Your task to perform on an android device: change timer sound Image 0: 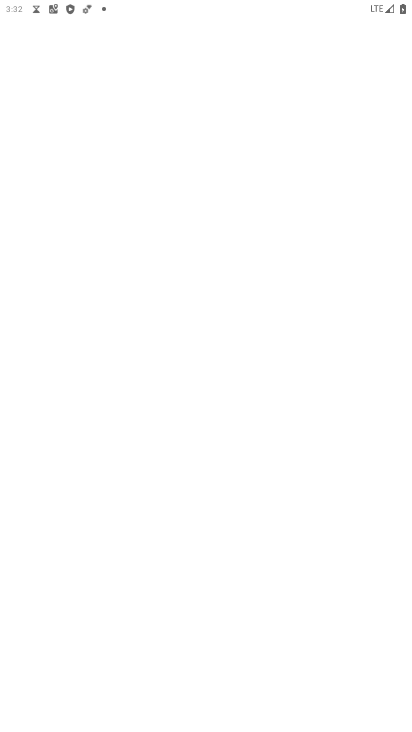
Step 0: drag from (249, 688) to (310, 150)
Your task to perform on an android device: change timer sound Image 1: 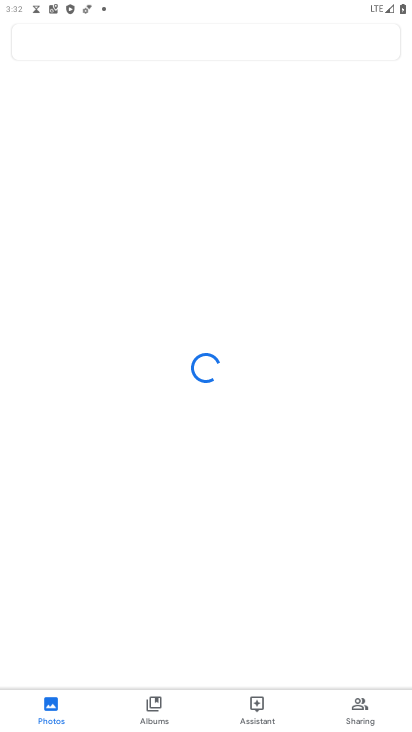
Step 1: press home button
Your task to perform on an android device: change timer sound Image 2: 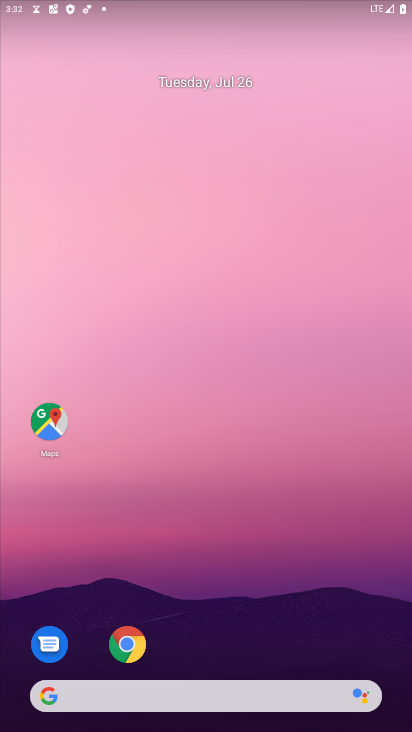
Step 2: drag from (258, 676) to (226, 228)
Your task to perform on an android device: change timer sound Image 3: 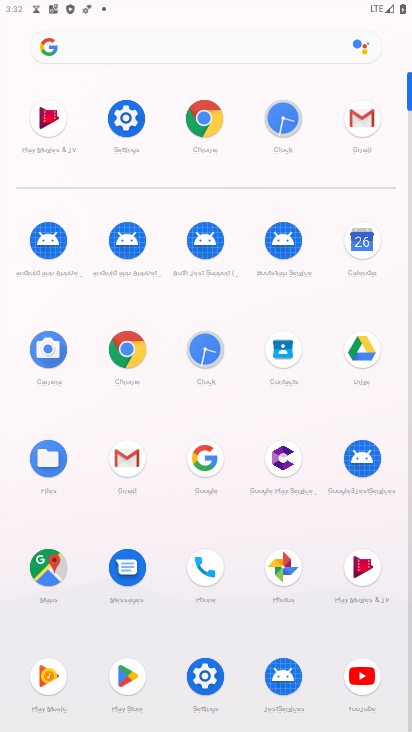
Step 3: click (294, 124)
Your task to perform on an android device: change timer sound Image 4: 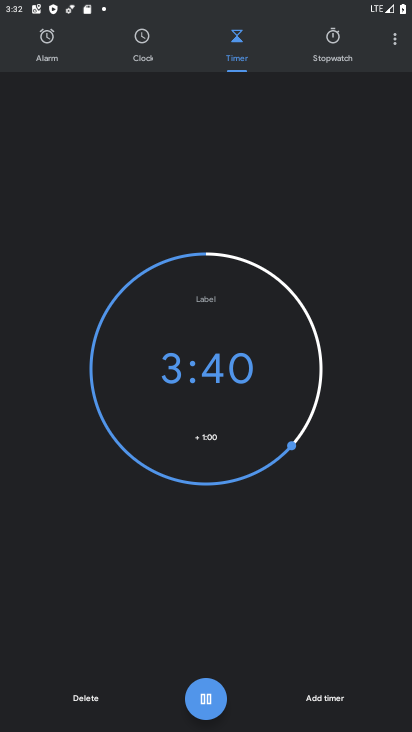
Step 4: click (393, 38)
Your task to perform on an android device: change timer sound Image 5: 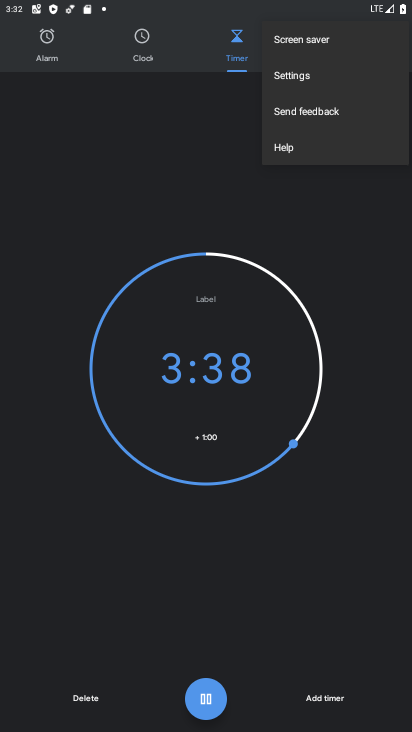
Step 5: click (297, 74)
Your task to perform on an android device: change timer sound Image 6: 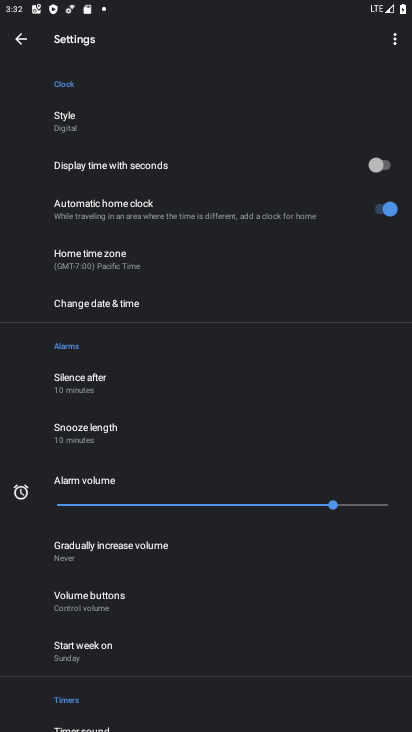
Step 6: drag from (110, 709) to (95, 283)
Your task to perform on an android device: change timer sound Image 7: 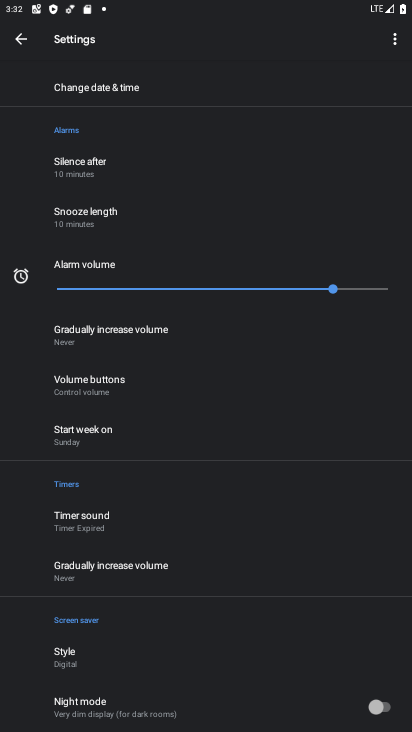
Step 7: click (71, 523)
Your task to perform on an android device: change timer sound Image 8: 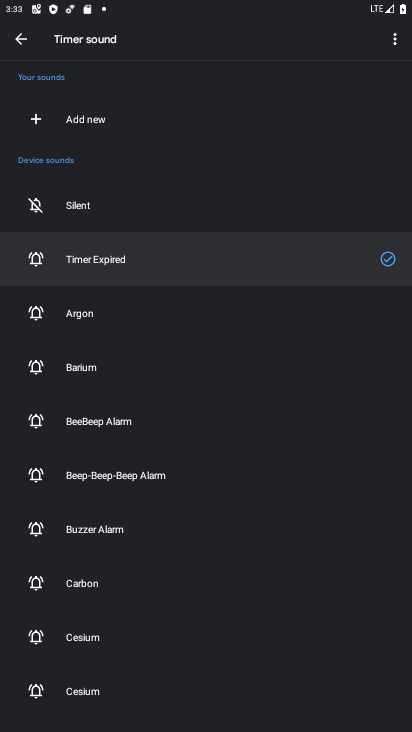
Step 8: click (75, 311)
Your task to perform on an android device: change timer sound Image 9: 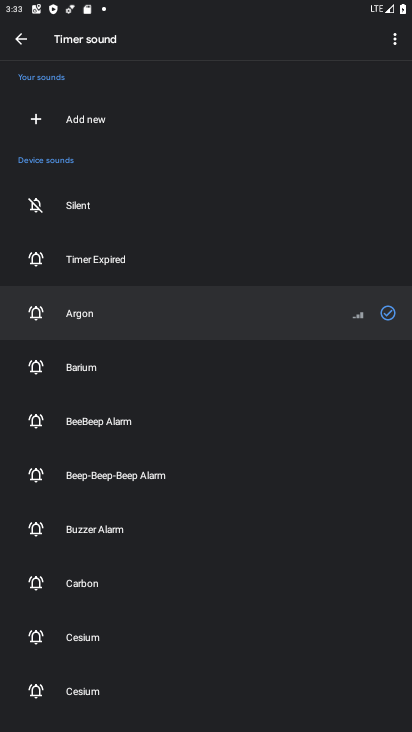
Step 9: task complete